Your task to perform on an android device: Go to CNN.com Image 0: 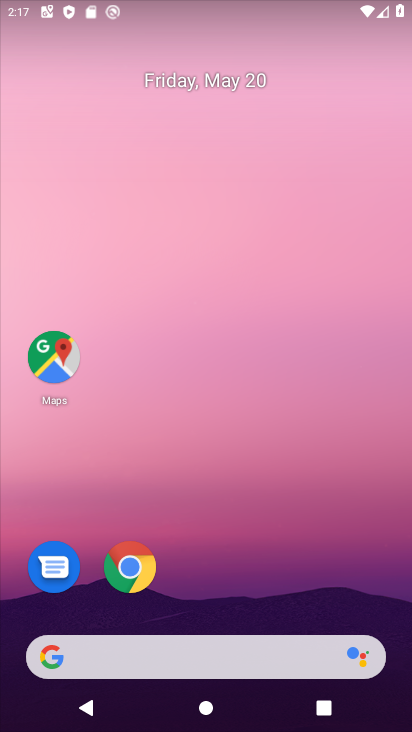
Step 0: drag from (248, 563) to (213, 27)
Your task to perform on an android device: Go to CNN.com Image 1: 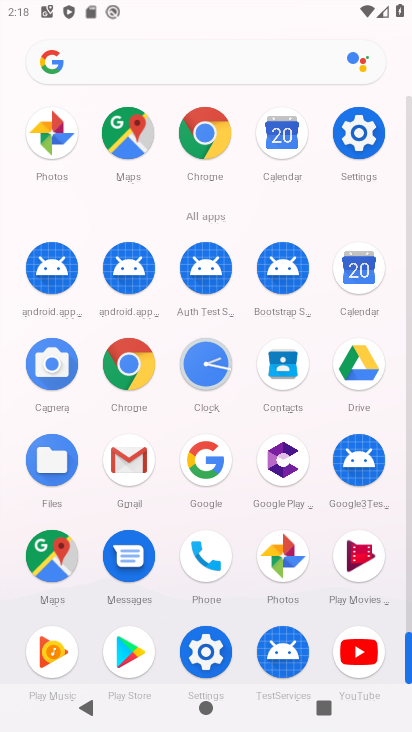
Step 1: drag from (9, 531) to (27, 247)
Your task to perform on an android device: Go to CNN.com Image 2: 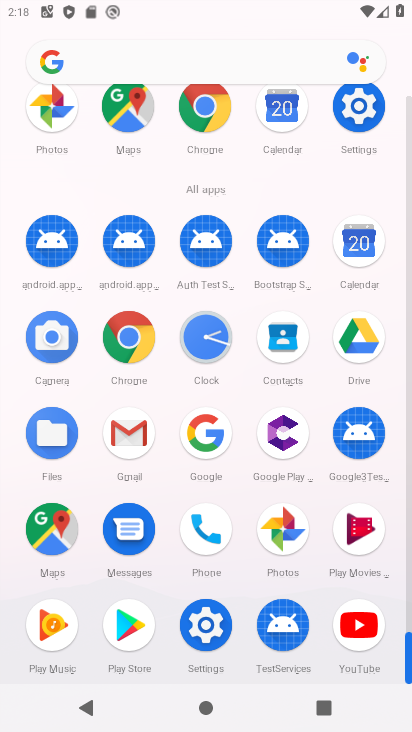
Step 2: click (128, 333)
Your task to perform on an android device: Go to CNN.com Image 3: 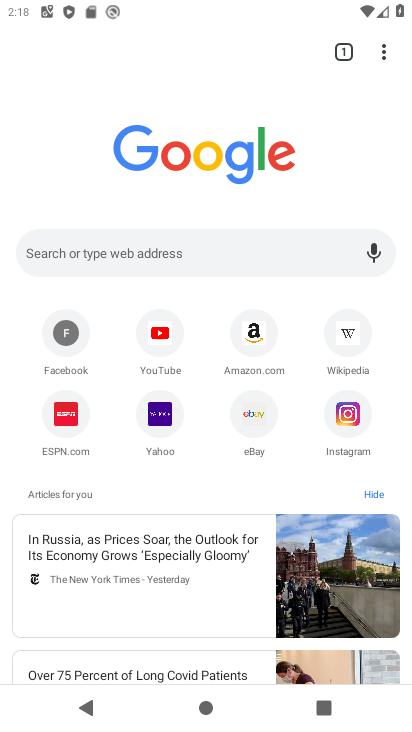
Step 3: click (211, 242)
Your task to perform on an android device: Go to CNN.com Image 4: 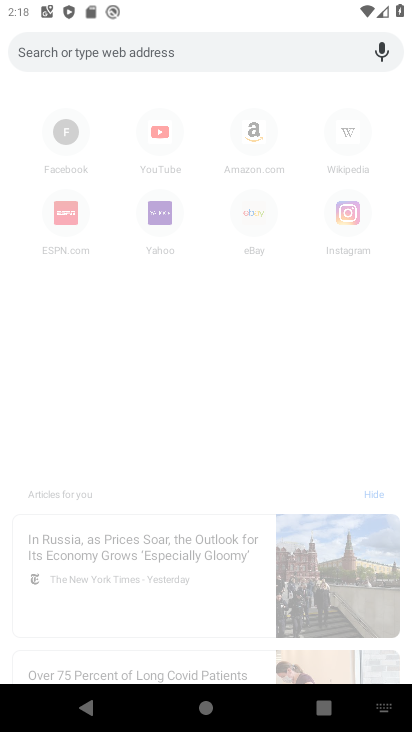
Step 4: type "CNN.com"
Your task to perform on an android device: Go to CNN.com Image 5: 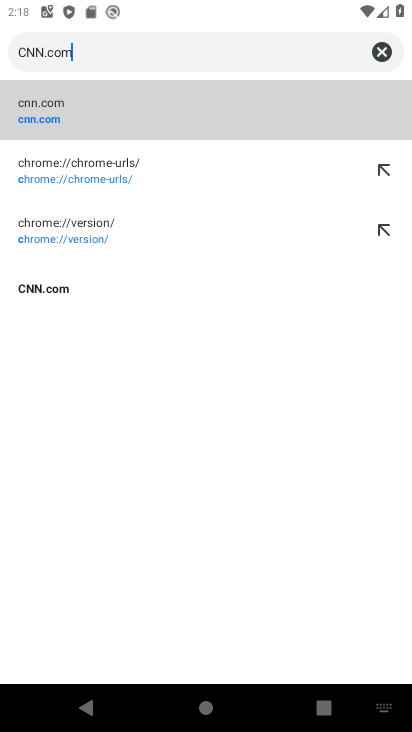
Step 5: type ""
Your task to perform on an android device: Go to CNN.com Image 6: 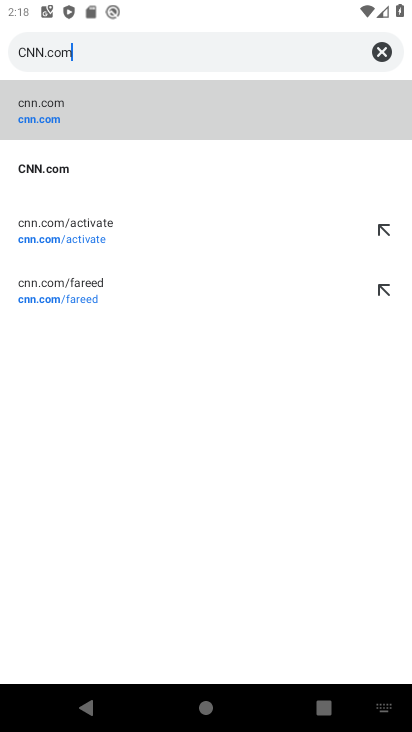
Step 6: click (95, 107)
Your task to perform on an android device: Go to CNN.com Image 7: 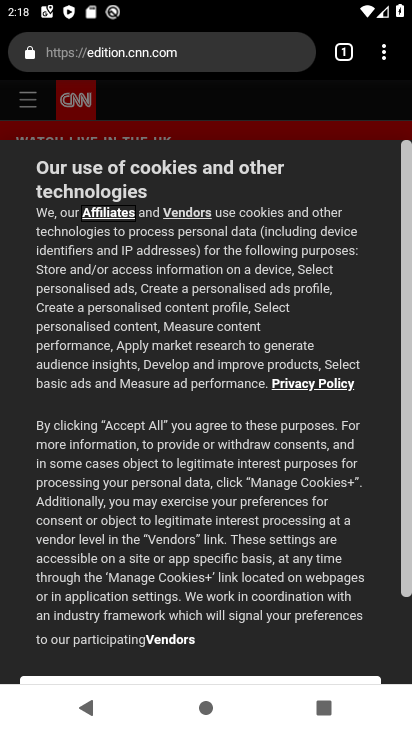
Step 7: drag from (194, 538) to (232, 252)
Your task to perform on an android device: Go to CNN.com Image 8: 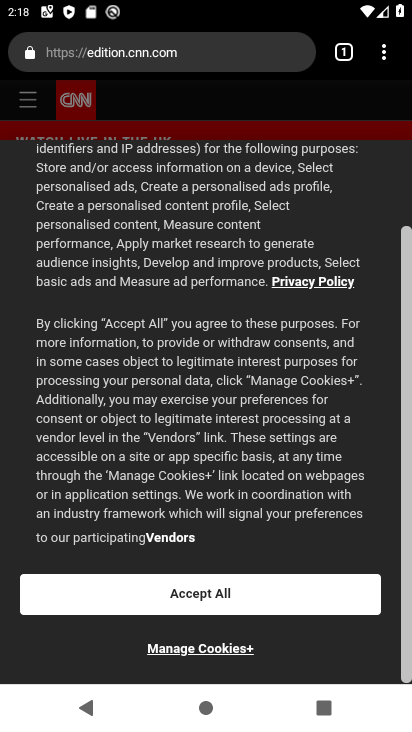
Step 8: click (179, 592)
Your task to perform on an android device: Go to CNN.com Image 9: 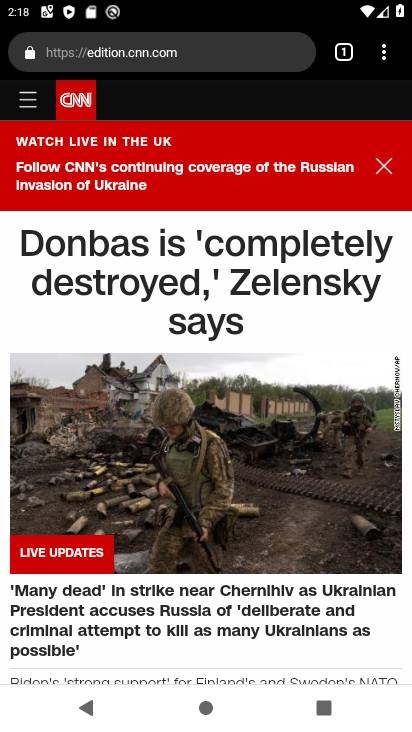
Step 9: task complete